Your task to perform on an android device: move an email to a new category in the gmail app Image 0: 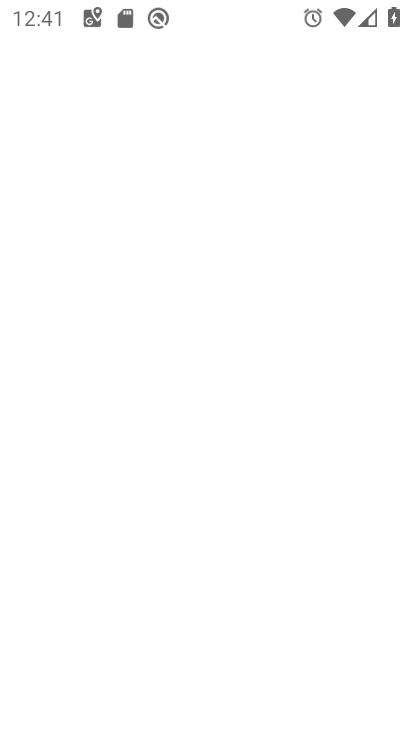
Step 0: click (263, 571)
Your task to perform on an android device: move an email to a new category in the gmail app Image 1: 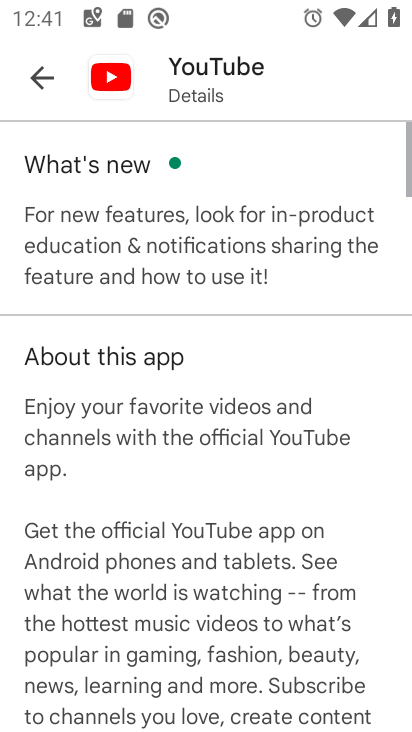
Step 1: press home button
Your task to perform on an android device: move an email to a new category in the gmail app Image 2: 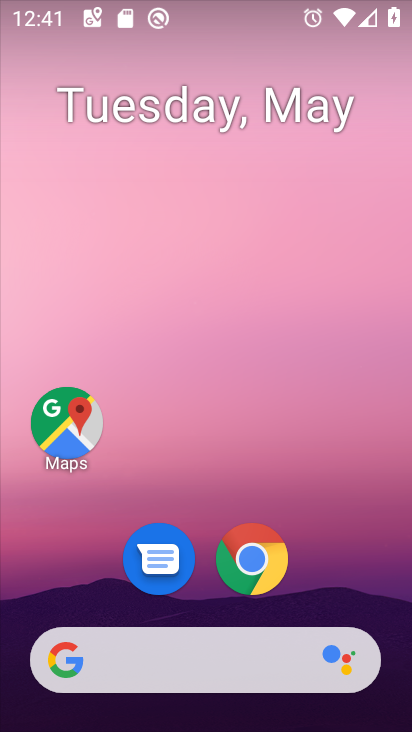
Step 2: drag from (377, 591) to (265, 93)
Your task to perform on an android device: move an email to a new category in the gmail app Image 3: 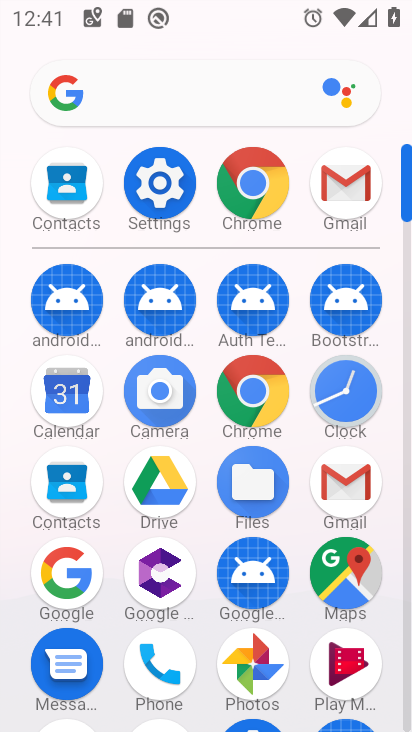
Step 3: click (362, 198)
Your task to perform on an android device: move an email to a new category in the gmail app Image 4: 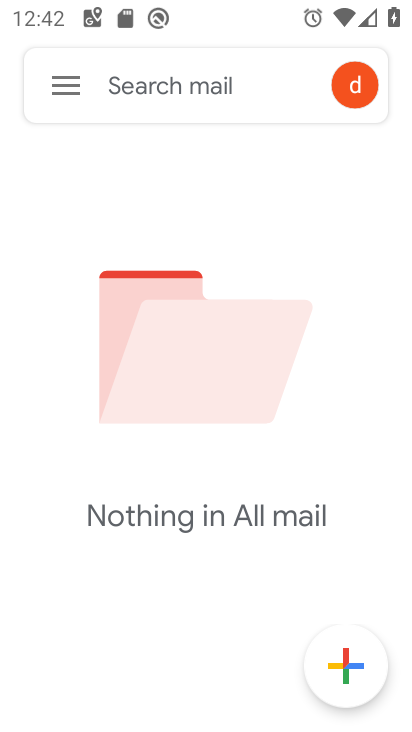
Step 4: task complete